Your task to perform on an android device: turn off location Image 0: 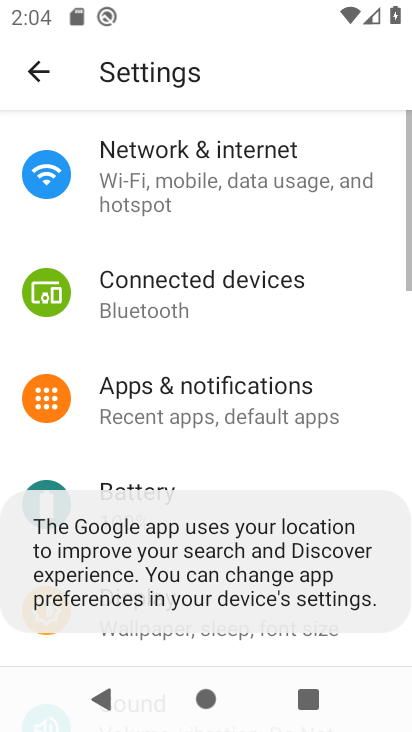
Step 0: drag from (162, 544) to (222, 286)
Your task to perform on an android device: turn off location Image 1: 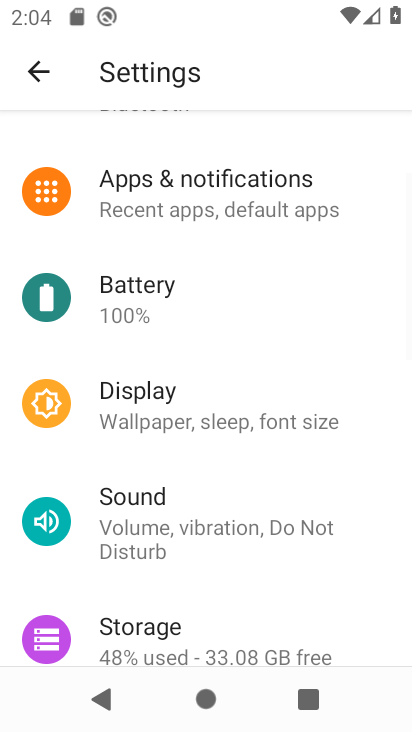
Step 1: drag from (148, 618) to (239, 247)
Your task to perform on an android device: turn off location Image 2: 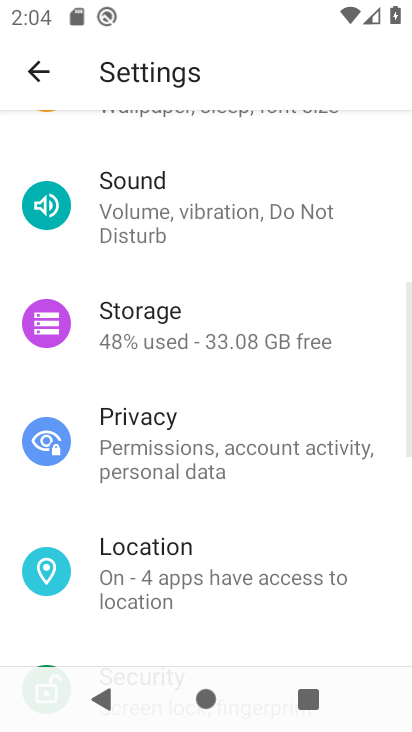
Step 2: click (177, 564)
Your task to perform on an android device: turn off location Image 3: 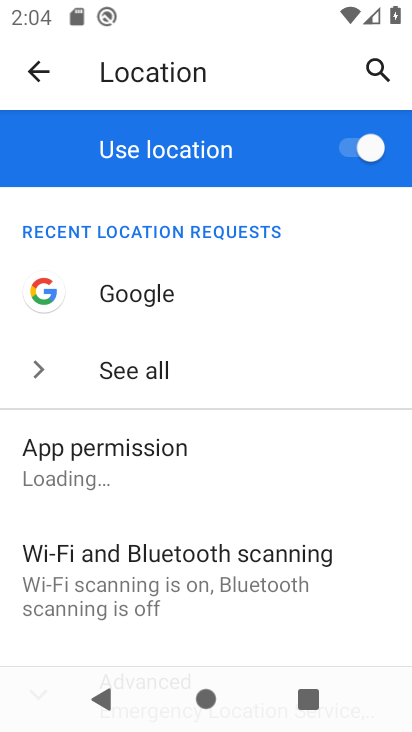
Step 3: click (347, 148)
Your task to perform on an android device: turn off location Image 4: 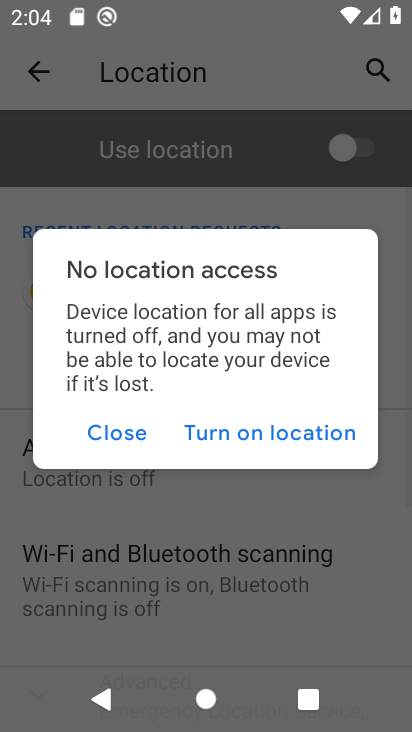
Step 4: task complete